Your task to perform on an android device: change the clock display to analog Image 0: 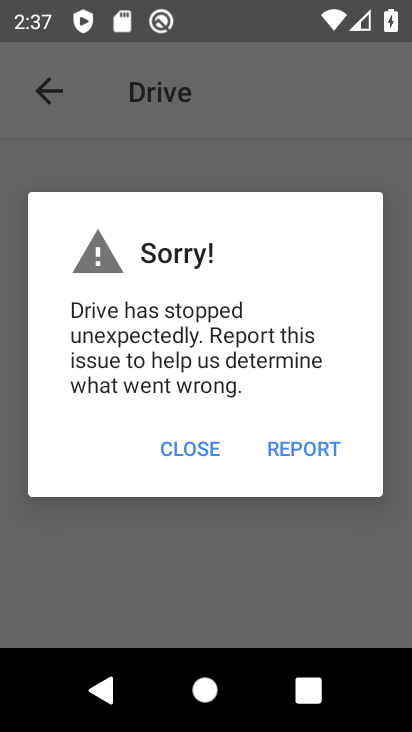
Step 0: press home button
Your task to perform on an android device: change the clock display to analog Image 1: 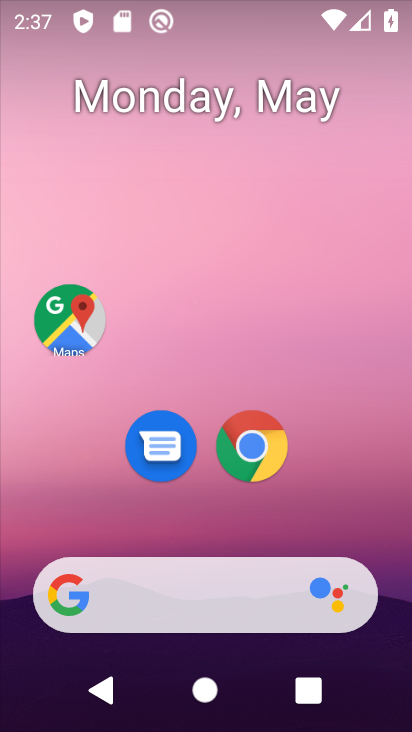
Step 1: drag from (233, 214) to (312, 6)
Your task to perform on an android device: change the clock display to analog Image 2: 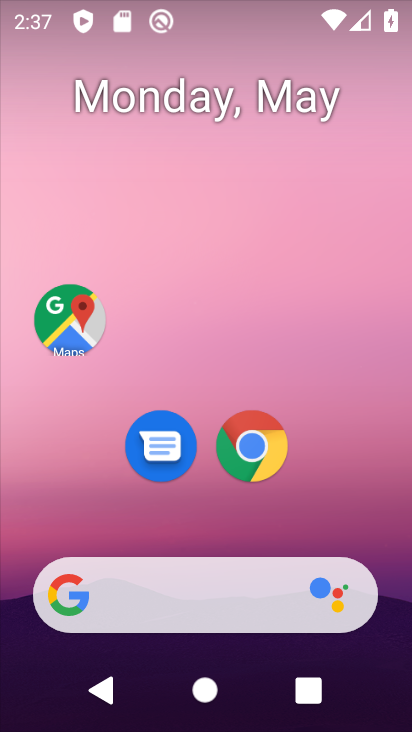
Step 2: drag from (59, 557) to (272, 62)
Your task to perform on an android device: change the clock display to analog Image 3: 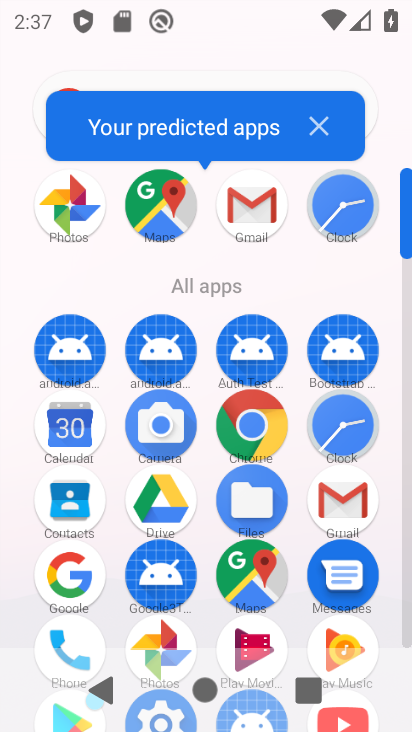
Step 3: click (360, 439)
Your task to perform on an android device: change the clock display to analog Image 4: 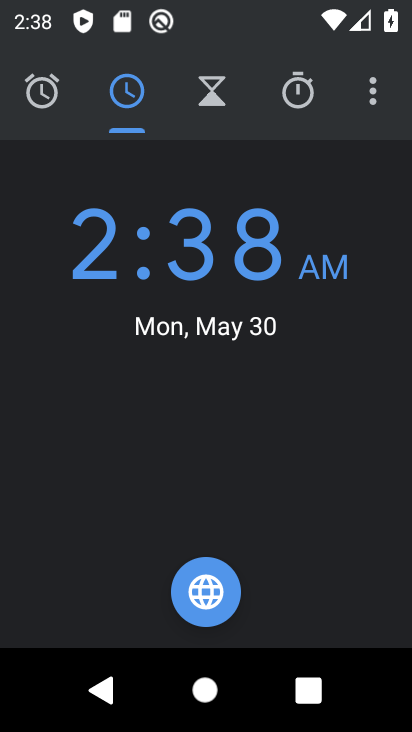
Step 4: click (387, 104)
Your task to perform on an android device: change the clock display to analog Image 5: 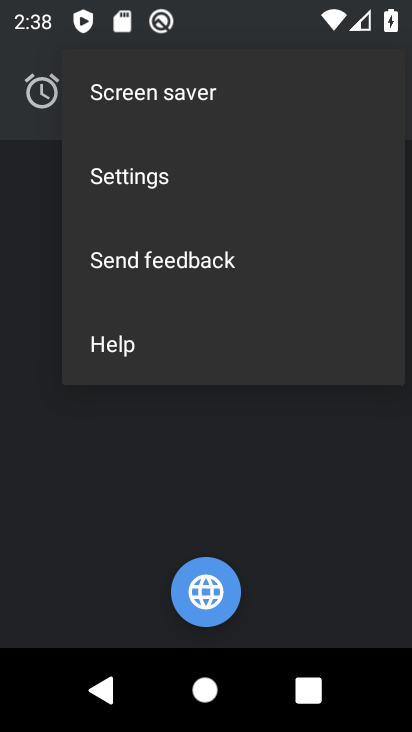
Step 5: click (301, 174)
Your task to perform on an android device: change the clock display to analog Image 6: 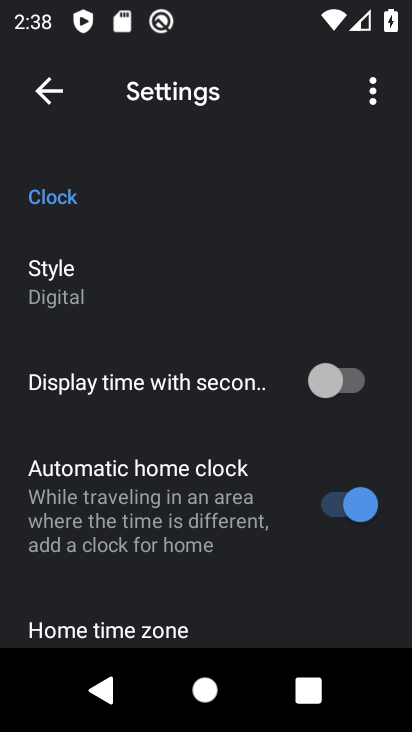
Step 6: click (278, 284)
Your task to perform on an android device: change the clock display to analog Image 7: 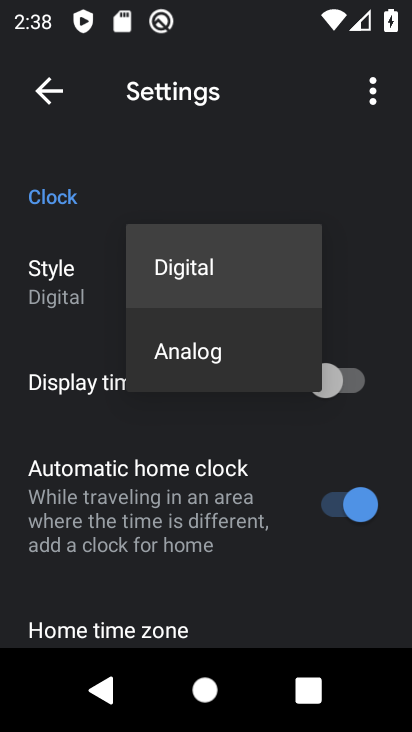
Step 7: click (205, 371)
Your task to perform on an android device: change the clock display to analog Image 8: 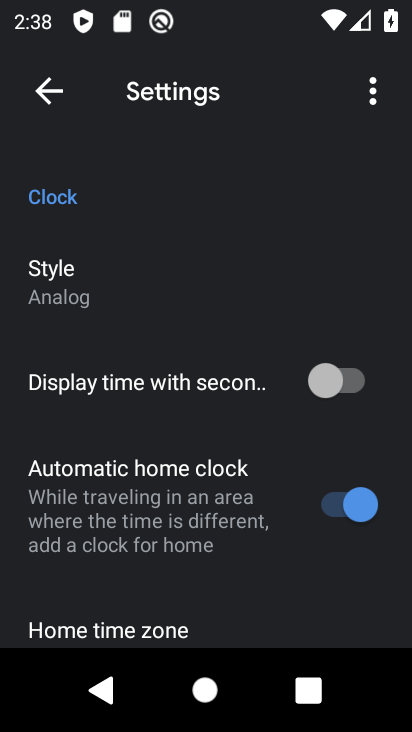
Step 8: task complete